Your task to perform on an android device: toggle notification dots Image 0: 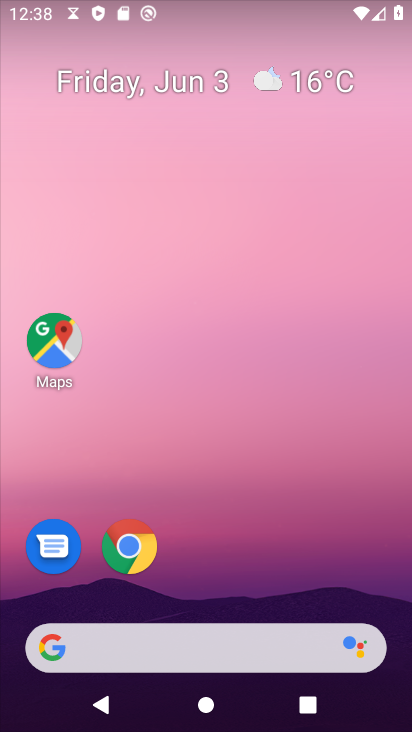
Step 0: drag from (231, 546) to (307, 30)
Your task to perform on an android device: toggle notification dots Image 1: 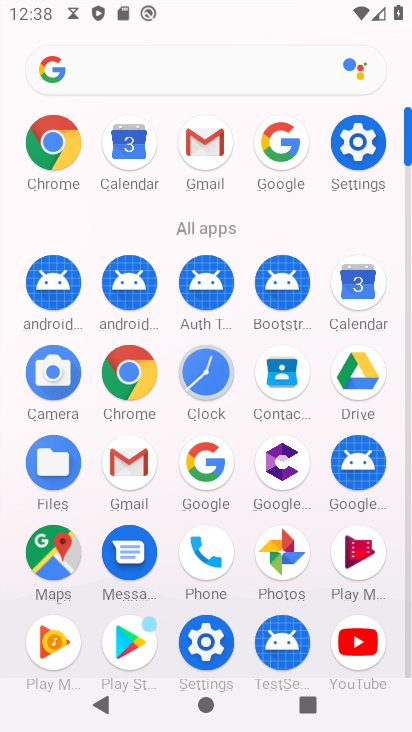
Step 1: click (345, 158)
Your task to perform on an android device: toggle notification dots Image 2: 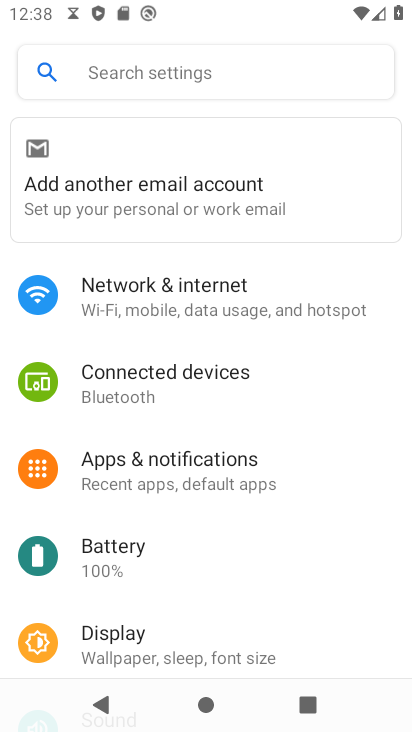
Step 2: click (199, 485)
Your task to perform on an android device: toggle notification dots Image 3: 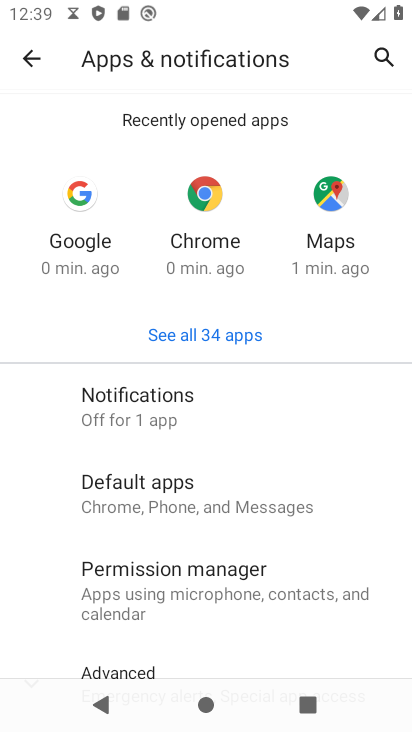
Step 3: click (181, 399)
Your task to perform on an android device: toggle notification dots Image 4: 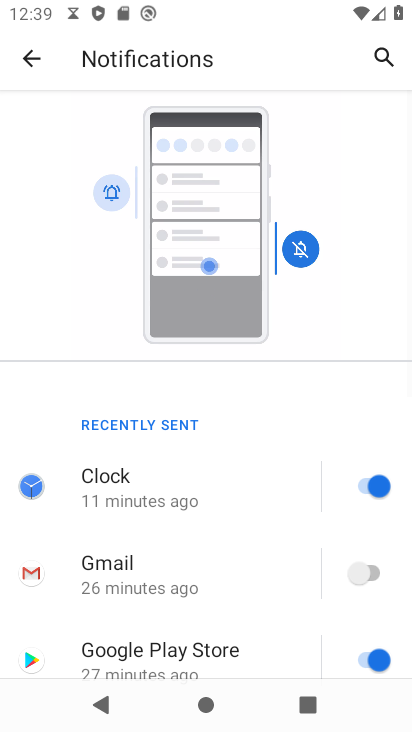
Step 4: drag from (175, 633) to (267, 30)
Your task to perform on an android device: toggle notification dots Image 5: 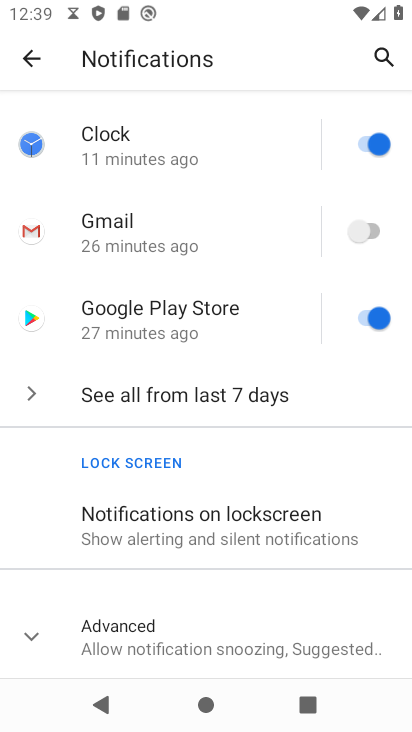
Step 5: drag from (152, 584) to (214, 121)
Your task to perform on an android device: toggle notification dots Image 6: 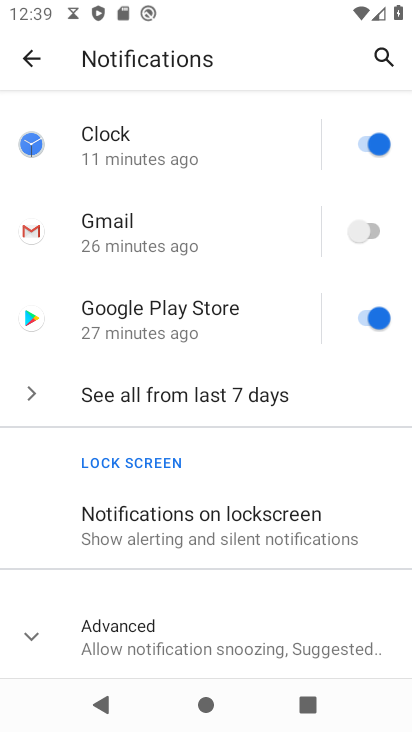
Step 6: click (137, 623)
Your task to perform on an android device: toggle notification dots Image 7: 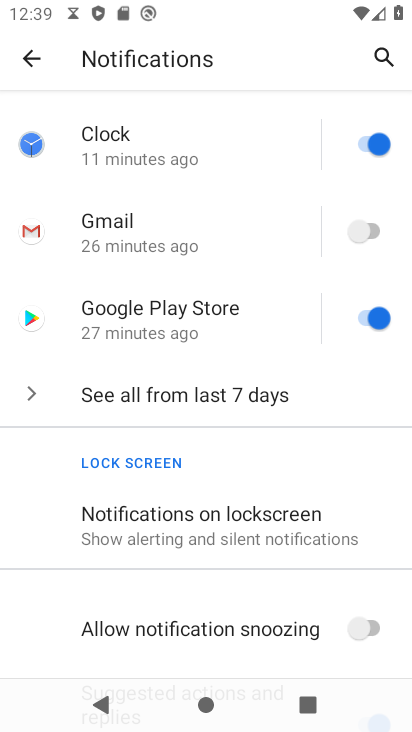
Step 7: drag from (212, 553) to (243, 219)
Your task to perform on an android device: toggle notification dots Image 8: 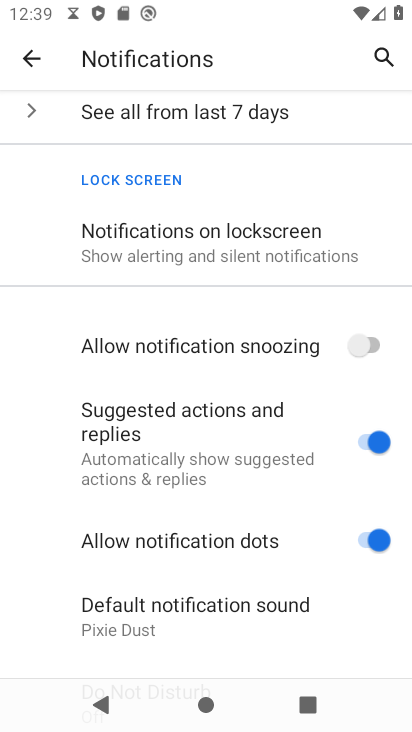
Step 8: click (383, 545)
Your task to perform on an android device: toggle notification dots Image 9: 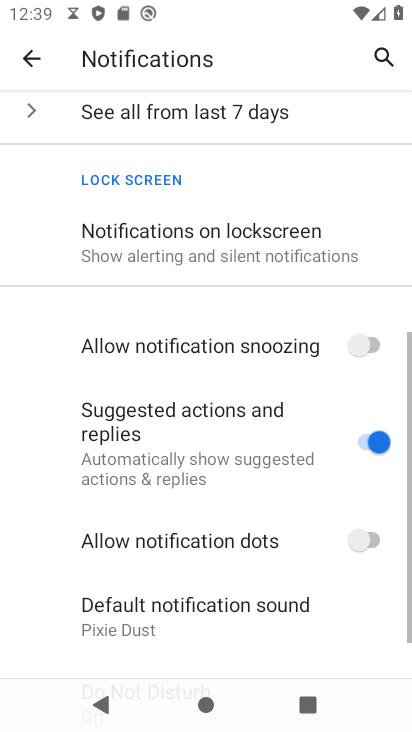
Step 9: task complete